Your task to perform on an android device: turn off improve location accuracy Image 0: 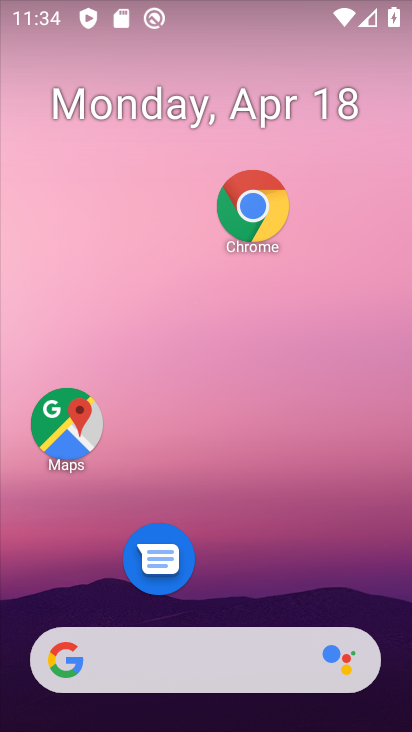
Step 0: drag from (265, 576) to (314, 105)
Your task to perform on an android device: turn off improve location accuracy Image 1: 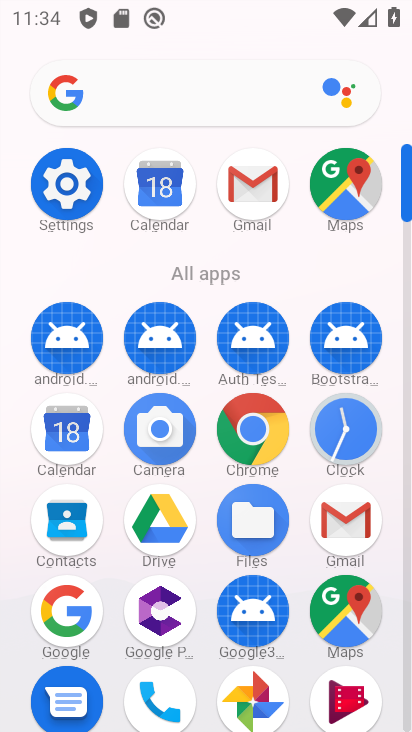
Step 1: drag from (216, 626) to (236, 203)
Your task to perform on an android device: turn off improve location accuracy Image 2: 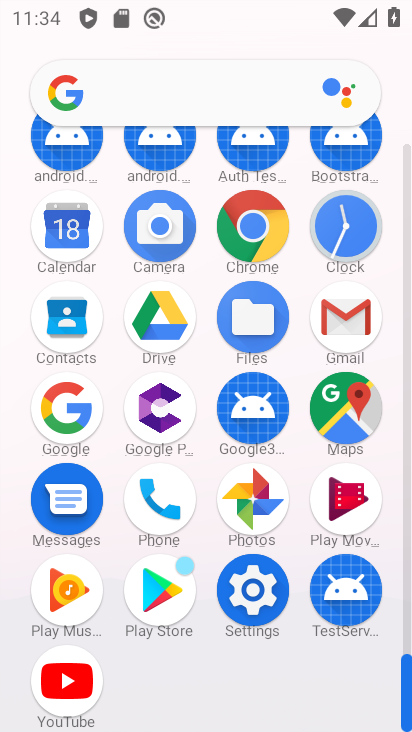
Step 2: click (258, 580)
Your task to perform on an android device: turn off improve location accuracy Image 3: 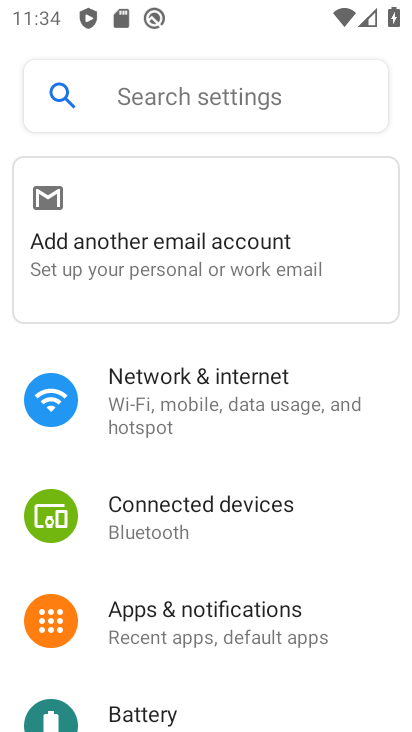
Step 3: drag from (246, 695) to (264, 179)
Your task to perform on an android device: turn off improve location accuracy Image 4: 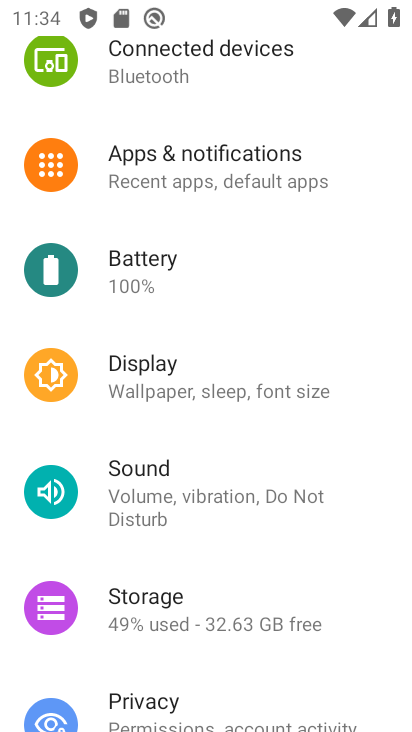
Step 4: drag from (282, 702) to (375, 262)
Your task to perform on an android device: turn off improve location accuracy Image 5: 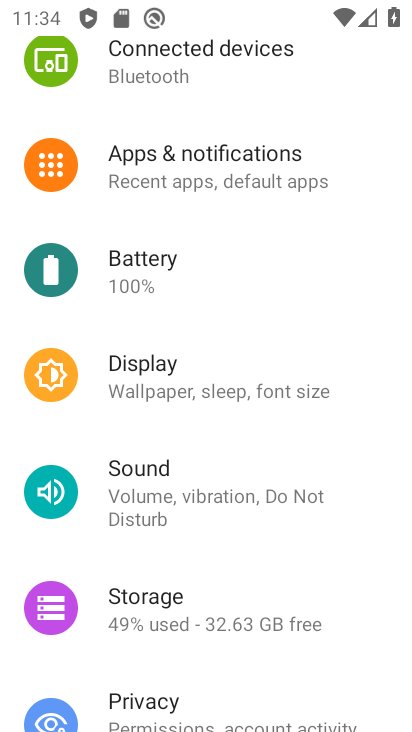
Step 5: drag from (244, 684) to (295, 208)
Your task to perform on an android device: turn off improve location accuracy Image 6: 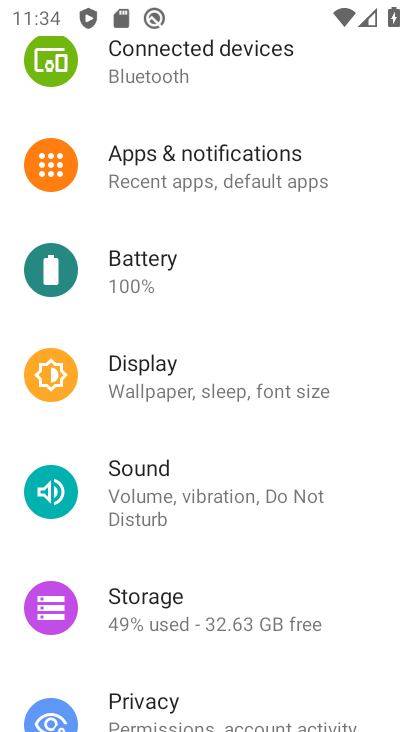
Step 6: drag from (220, 680) to (262, 325)
Your task to perform on an android device: turn off improve location accuracy Image 7: 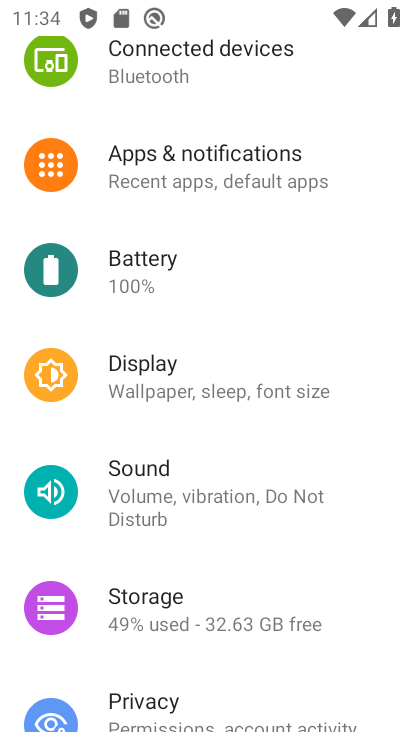
Step 7: drag from (193, 683) to (228, 129)
Your task to perform on an android device: turn off improve location accuracy Image 8: 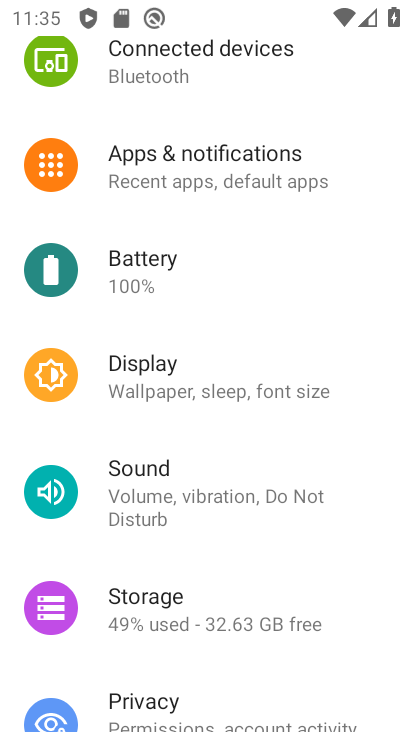
Step 8: drag from (239, 720) to (206, 185)
Your task to perform on an android device: turn off improve location accuracy Image 9: 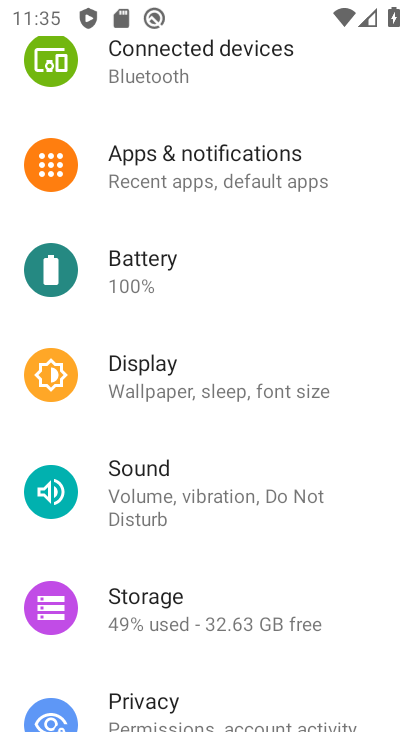
Step 9: drag from (193, 715) to (232, 202)
Your task to perform on an android device: turn off improve location accuracy Image 10: 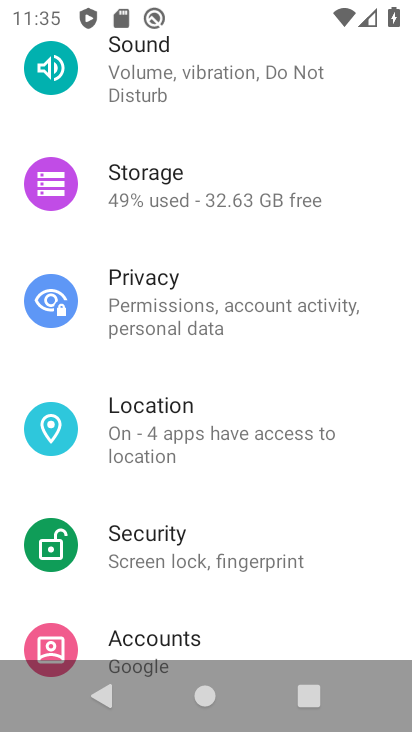
Step 10: click (192, 426)
Your task to perform on an android device: turn off improve location accuracy Image 11: 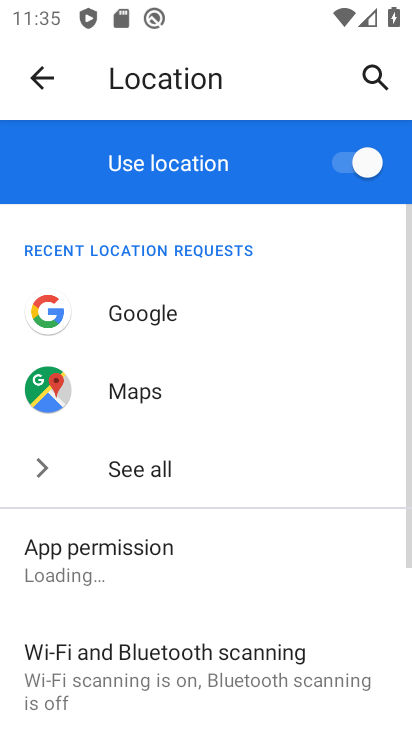
Step 11: drag from (215, 691) to (251, 245)
Your task to perform on an android device: turn off improve location accuracy Image 12: 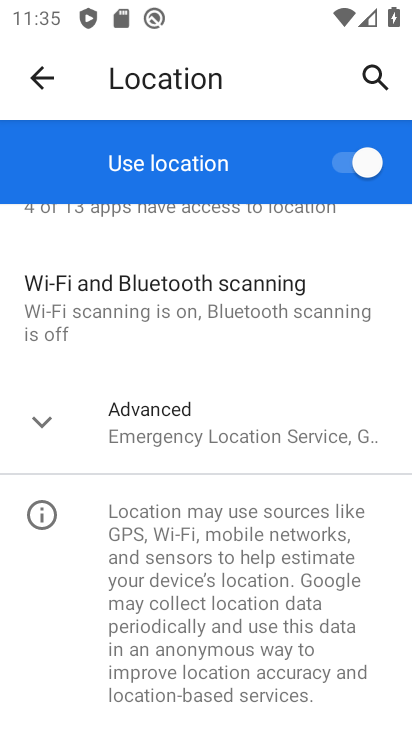
Step 12: click (216, 430)
Your task to perform on an android device: turn off improve location accuracy Image 13: 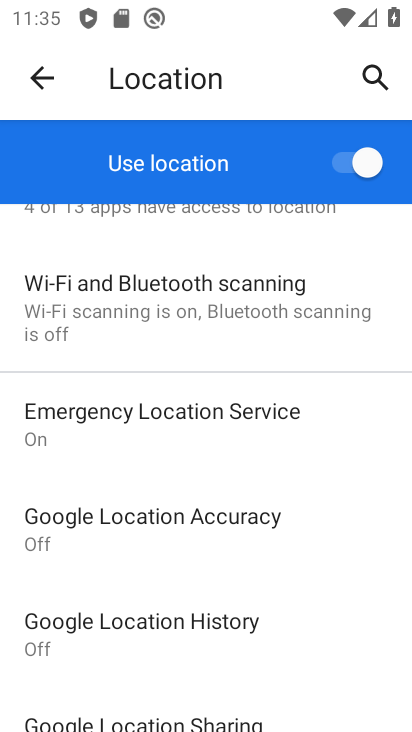
Step 13: drag from (252, 695) to (317, 313)
Your task to perform on an android device: turn off improve location accuracy Image 14: 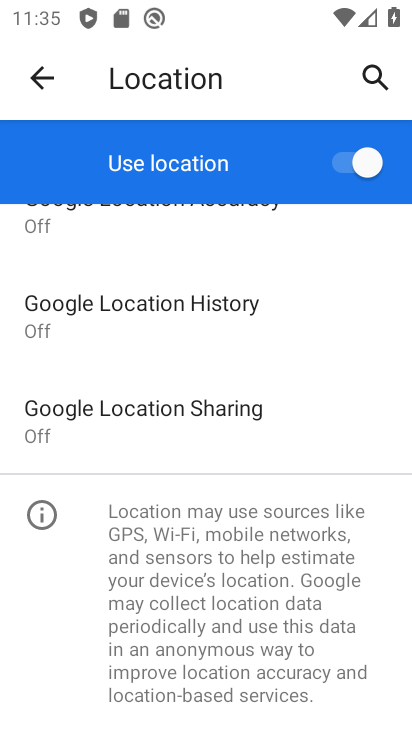
Step 14: click (255, 214)
Your task to perform on an android device: turn off improve location accuracy Image 15: 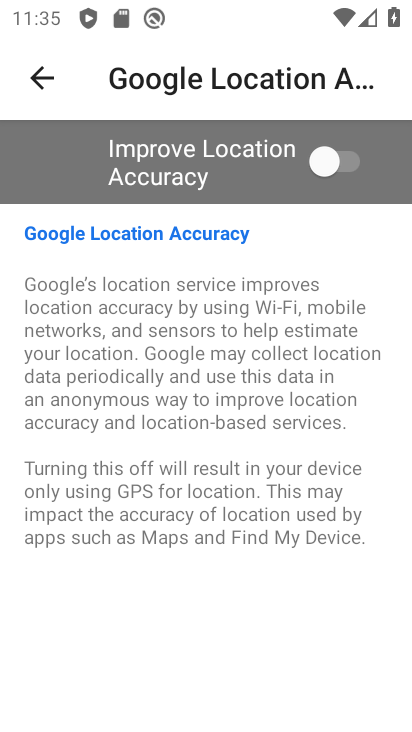
Step 15: task complete